Your task to perform on an android device: check android version Image 0: 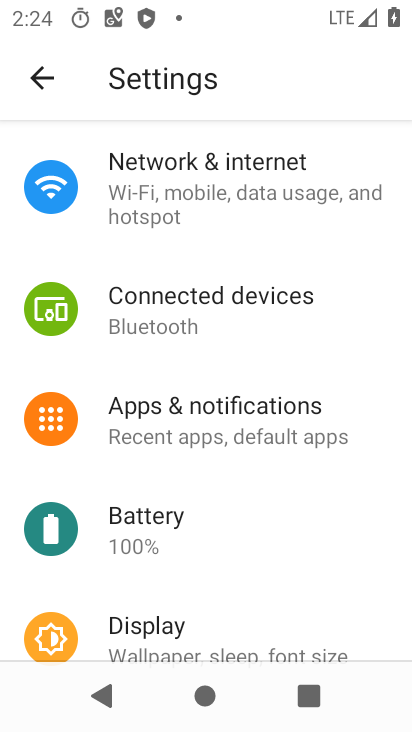
Step 0: drag from (304, 517) to (383, 51)
Your task to perform on an android device: check android version Image 1: 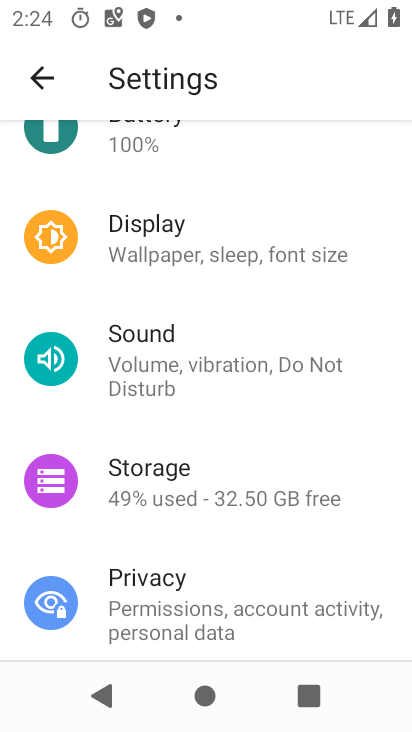
Step 1: drag from (293, 555) to (356, 136)
Your task to perform on an android device: check android version Image 2: 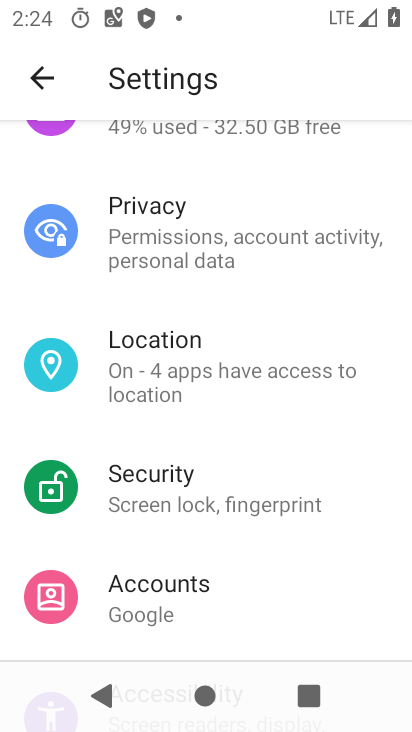
Step 2: drag from (249, 587) to (344, 191)
Your task to perform on an android device: check android version Image 3: 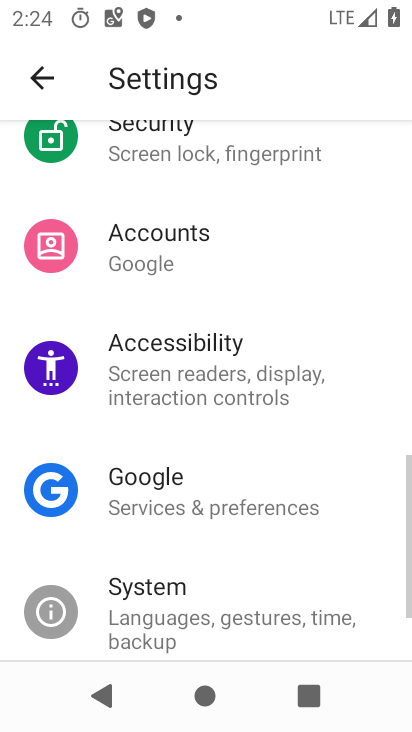
Step 3: drag from (266, 386) to (326, 223)
Your task to perform on an android device: check android version Image 4: 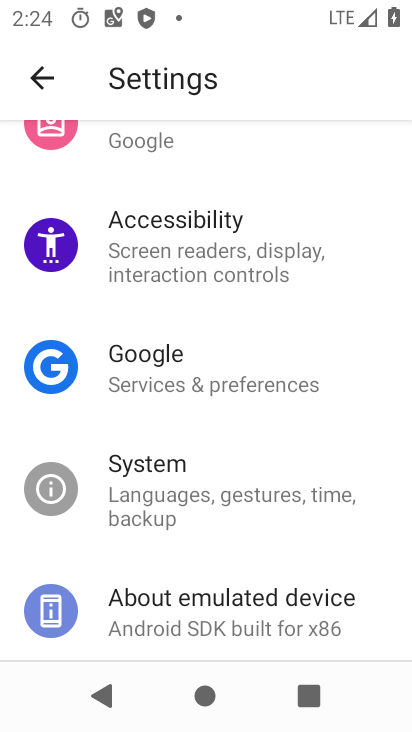
Step 4: drag from (220, 579) to (329, 229)
Your task to perform on an android device: check android version Image 5: 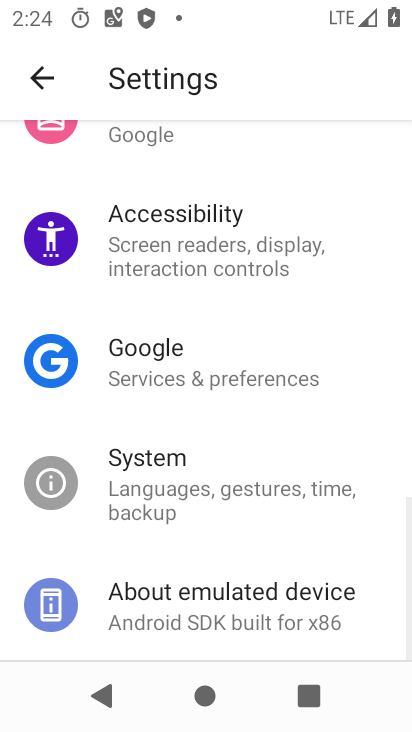
Step 5: click (226, 609)
Your task to perform on an android device: check android version Image 6: 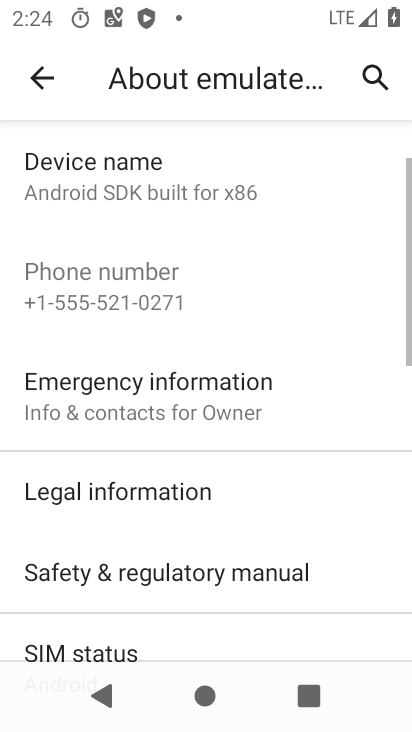
Step 6: drag from (216, 616) to (307, 250)
Your task to perform on an android device: check android version Image 7: 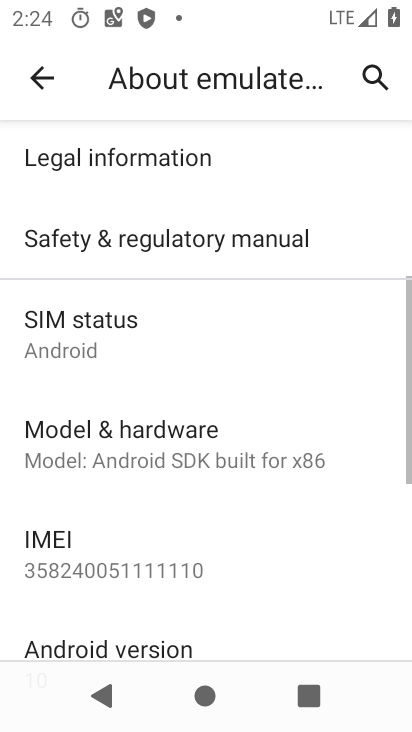
Step 7: drag from (186, 579) to (257, 252)
Your task to perform on an android device: check android version Image 8: 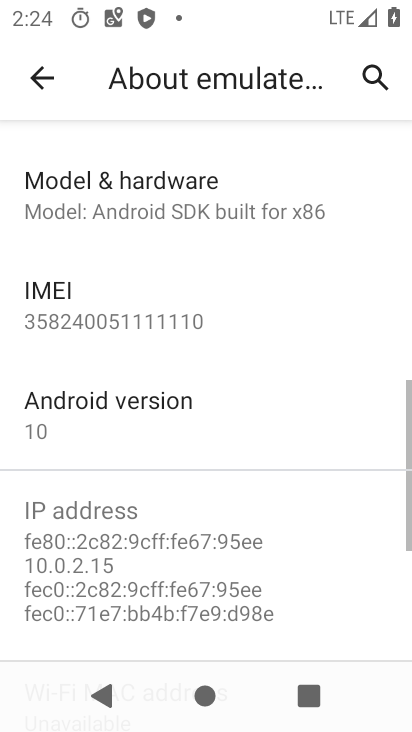
Step 8: click (146, 444)
Your task to perform on an android device: check android version Image 9: 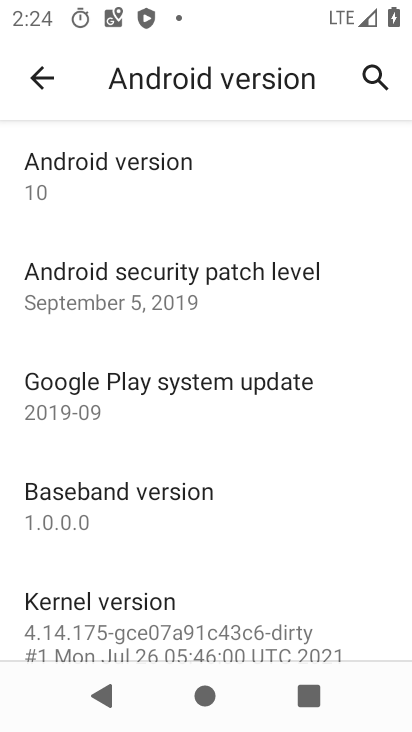
Step 9: drag from (282, 550) to (388, 178)
Your task to perform on an android device: check android version Image 10: 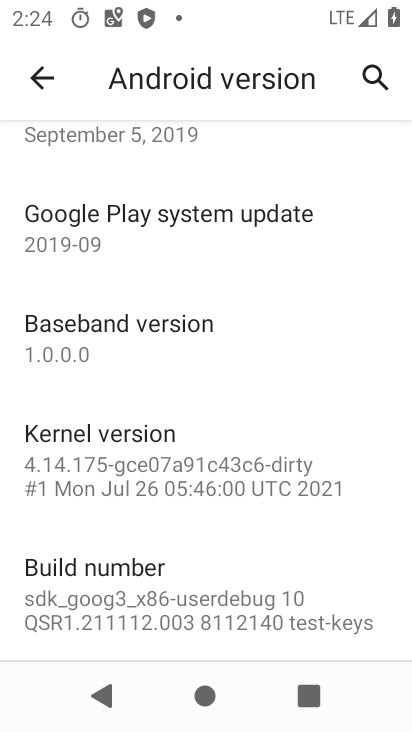
Step 10: drag from (348, 209) to (296, 513)
Your task to perform on an android device: check android version Image 11: 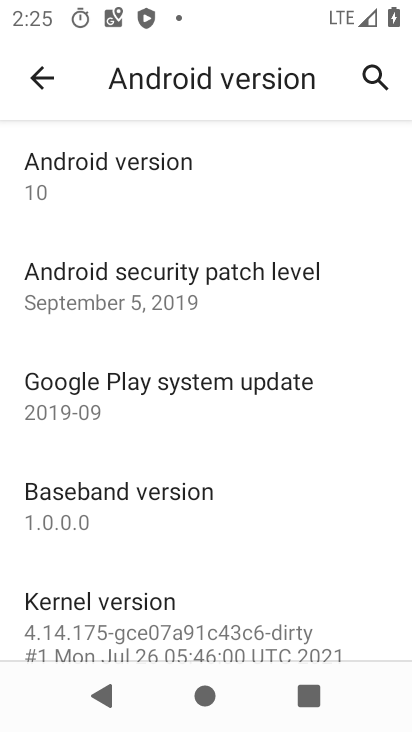
Step 11: click (188, 178)
Your task to perform on an android device: check android version Image 12: 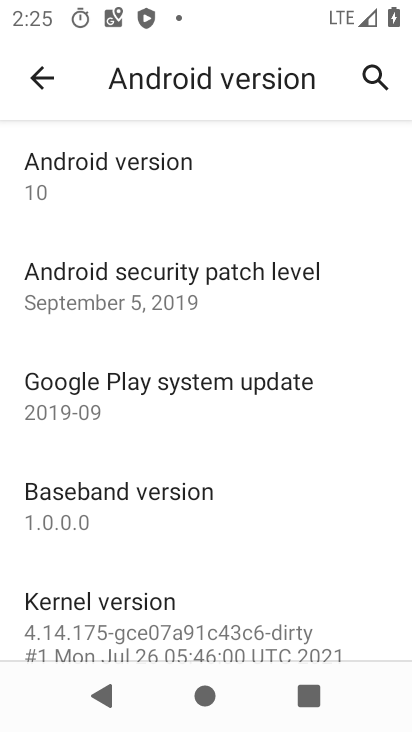
Step 12: task complete